Your task to perform on an android device: Open sound settings Image 0: 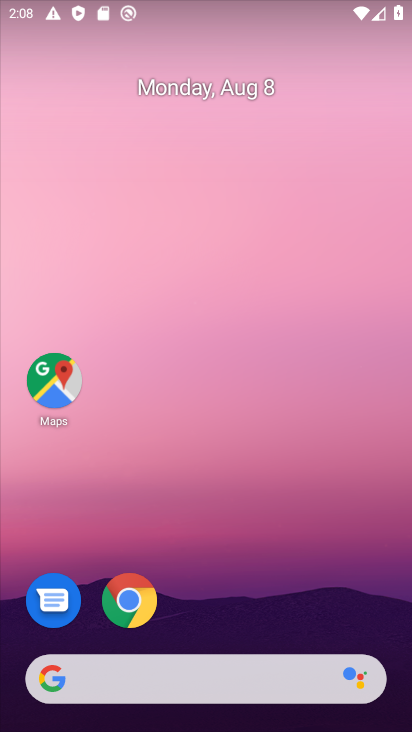
Step 0: drag from (243, 585) to (212, 31)
Your task to perform on an android device: Open sound settings Image 1: 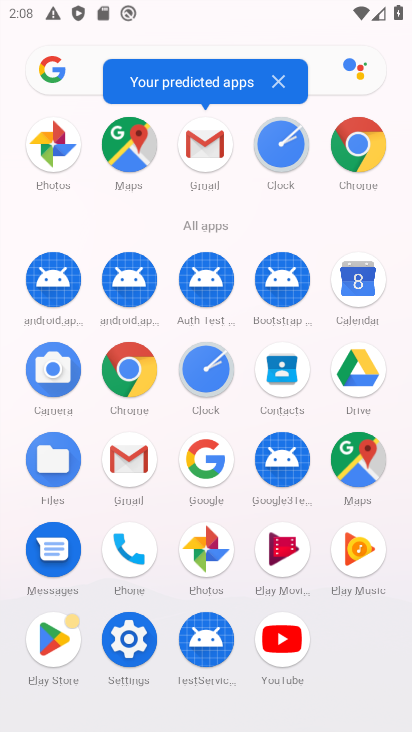
Step 1: click (121, 644)
Your task to perform on an android device: Open sound settings Image 2: 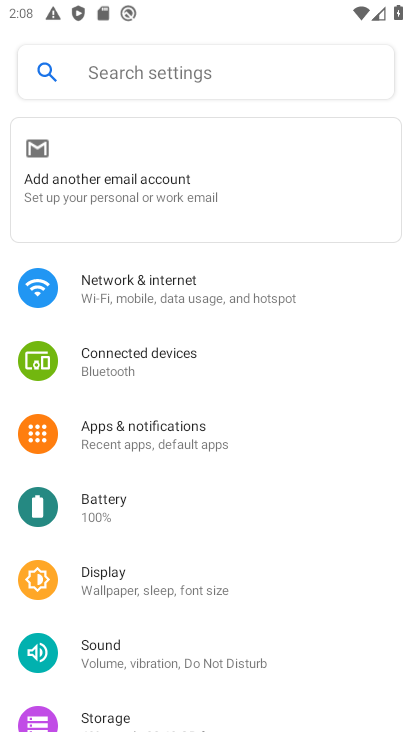
Step 2: click (144, 655)
Your task to perform on an android device: Open sound settings Image 3: 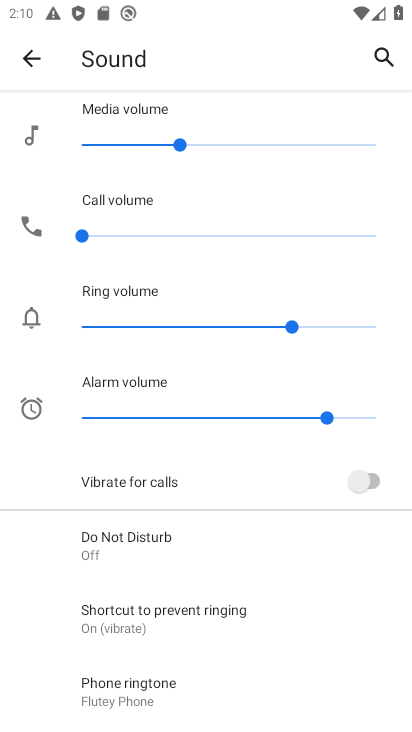
Step 3: task complete